Your task to perform on an android device: change your default location settings in chrome Image 0: 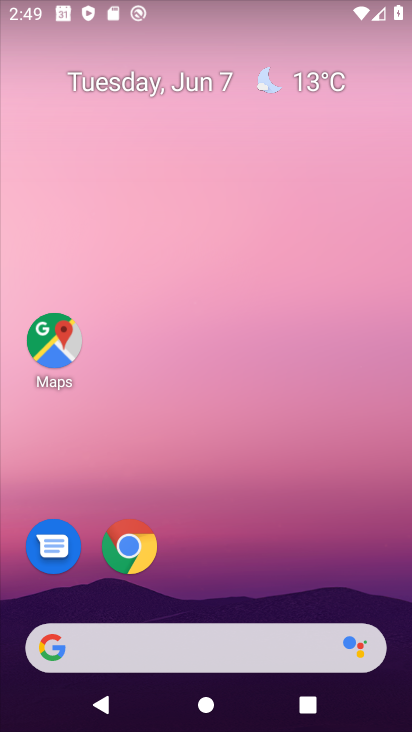
Step 0: drag from (245, 455) to (283, 198)
Your task to perform on an android device: change your default location settings in chrome Image 1: 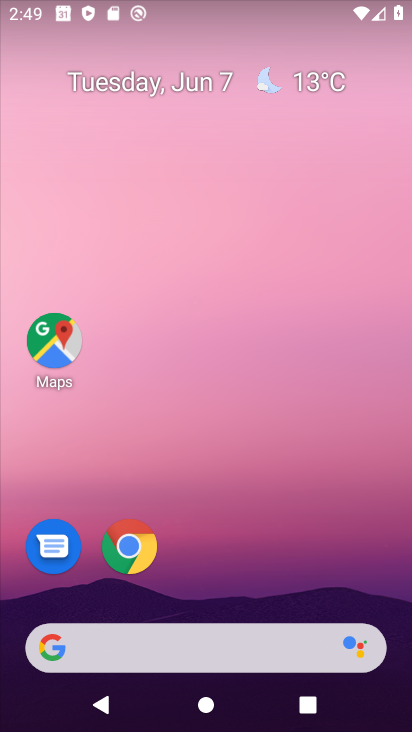
Step 1: drag from (179, 579) to (218, 151)
Your task to perform on an android device: change your default location settings in chrome Image 2: 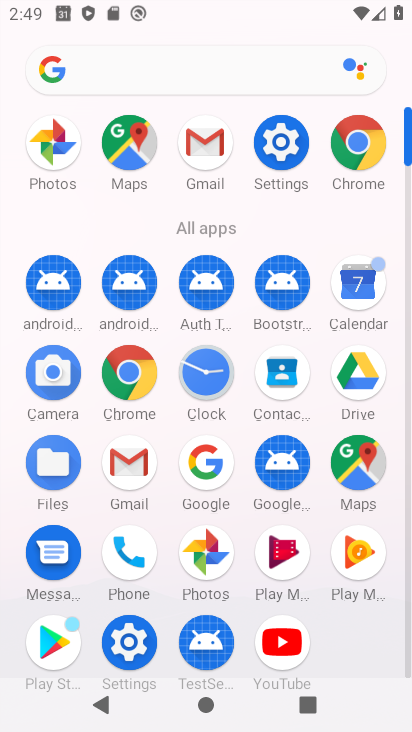
Step 2: click (365, 134)
Your task to perform on an android device: change your default location settings in chrome Image 3: 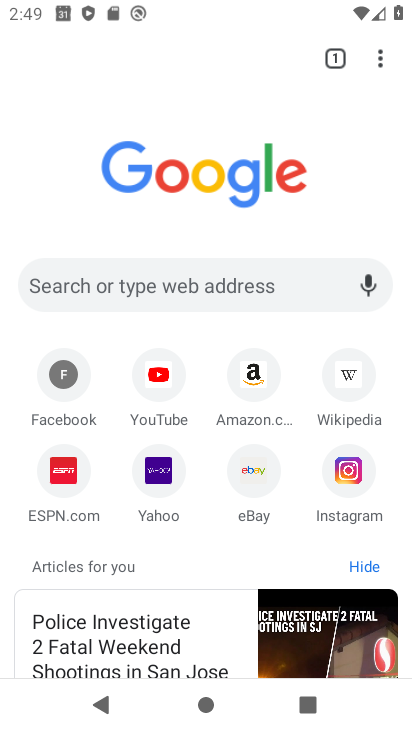
Step 3: click (379, 58)
Your task to perform on an android device: change your default location settings in chrome Image 4: 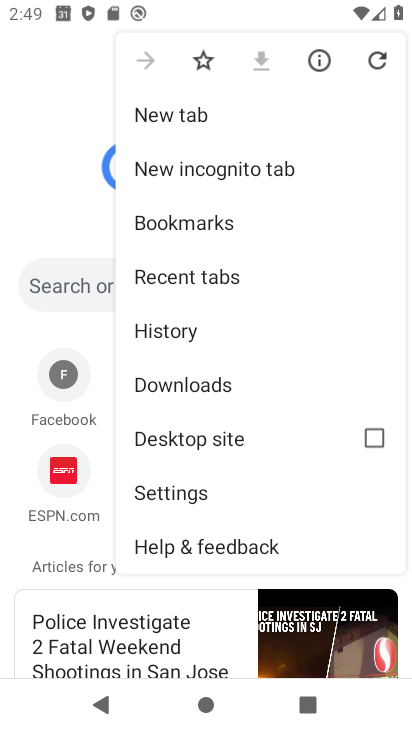
Step 4: click (187, 504)
Your task to perform on an android device: change your default location settings in chrome Image 5: 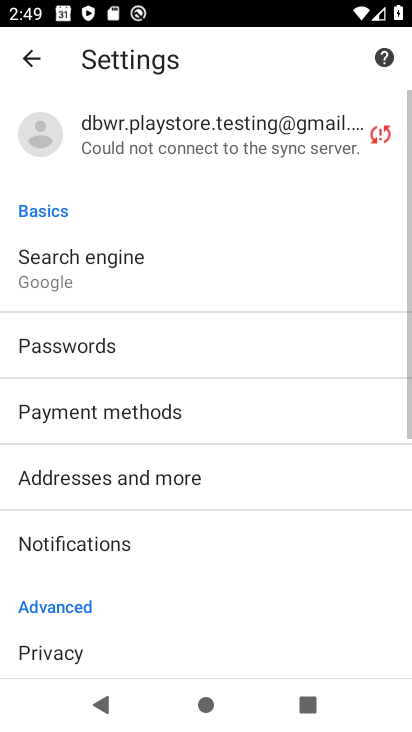
Step 5: drag from (170, 594) to (157, 154)
Your task to perform on an android device: change your default location settings in chrome Image 6: 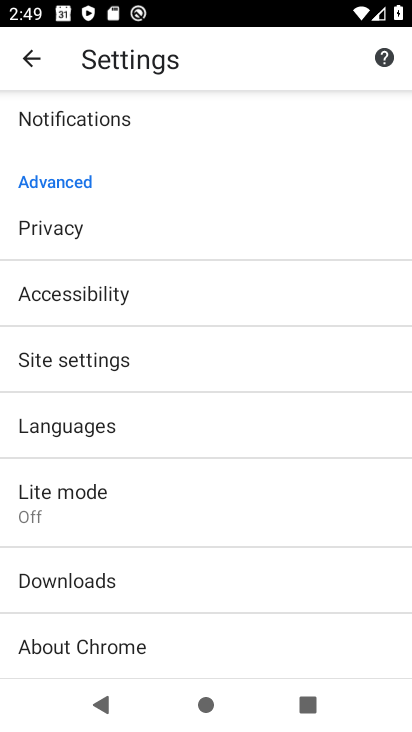
Step 6: drag from (94, 542) to (143, 253)
Your task to perform on an android device: change your default location settings in chrome Image 7: 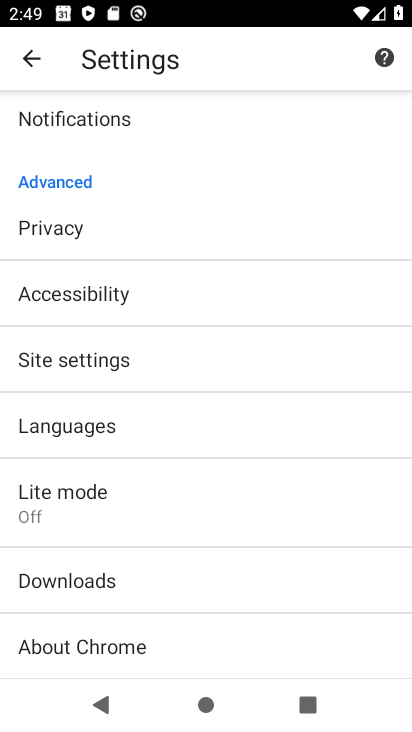
Step 7: click (48, 363)
Your task to perform on an android device: change your default location settings in chrome Image 8: 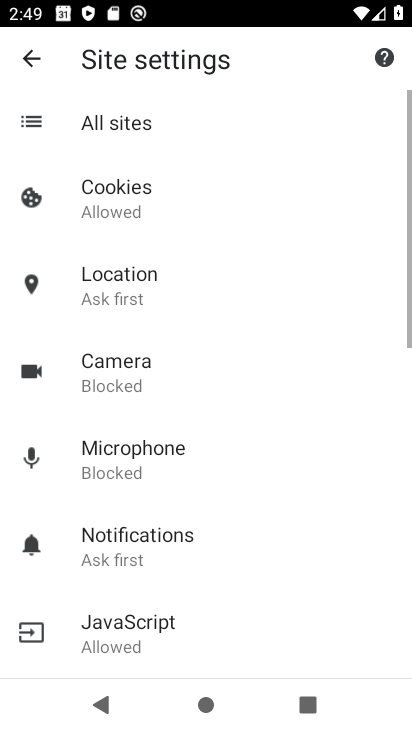
Step 8: click (193, 306)
Your task to perform on an android device: change your default location settings in chrome Image 9: 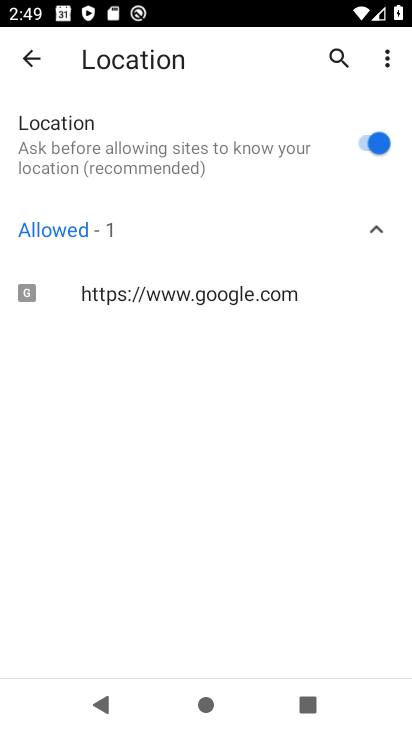
Step 9: click (379, 145)
Your task to perform on an android device: change your default location settings in chrome Image 10: 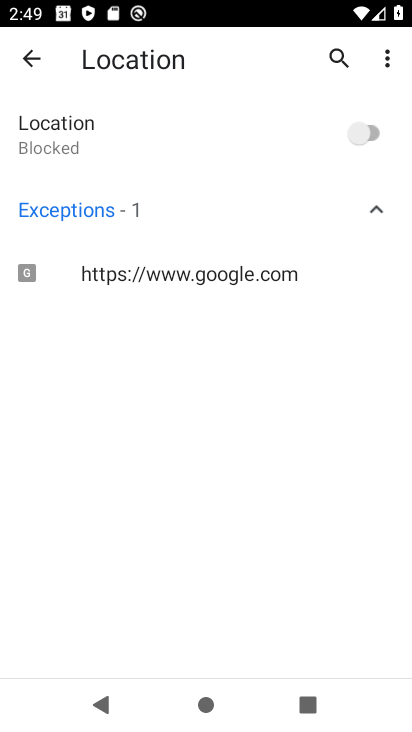
Step 10: click (379, 134)
Your task to perform on an android device: change your default location settings in chrome Image 11: 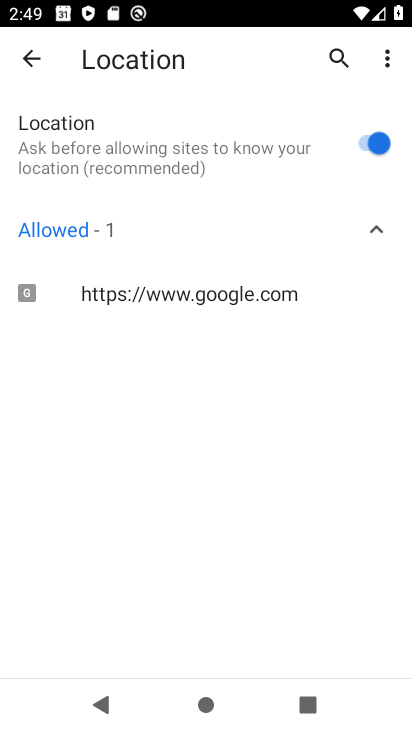
Step 11: task complete